Your task to perform on an android device: turn pop-ups off in chrome Image 0: 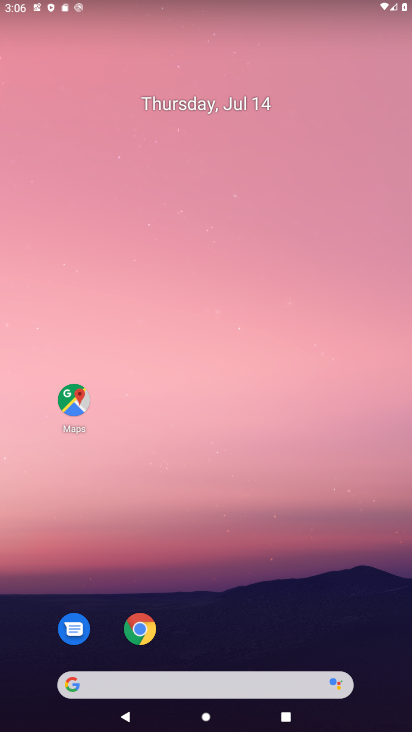
Step 0: click (133, 624)
Your task to perform on an android device: turn pop-ups off in chrome Image 1: 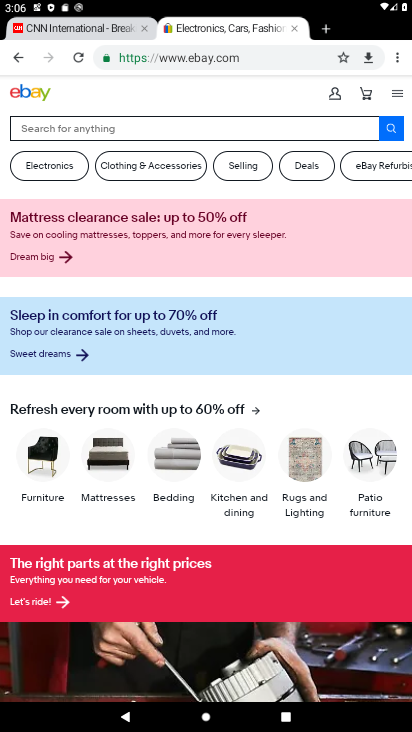
Step 1: click (399, 56)
Your task to perform on an android device: turn pop-ups off in chrome Image 2: 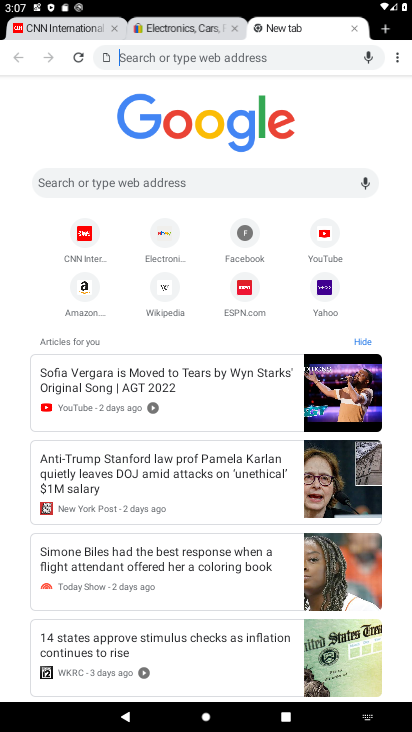
Step 2: click (399, 54)
Your task to perform on an android device: turn pop-ups off in chrome Image 3: 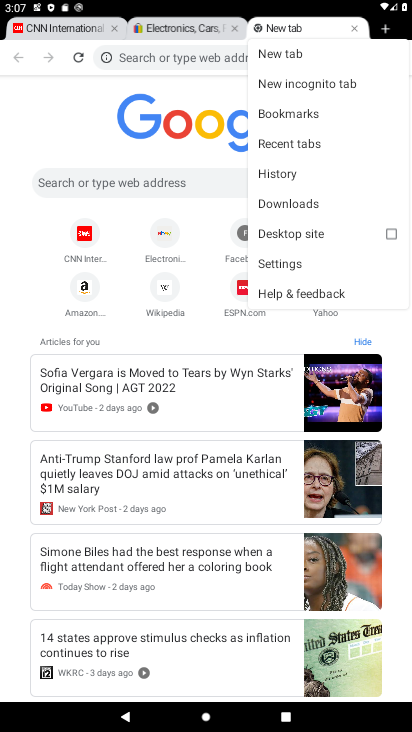
Step 3: click (301, 264)
Your task to perform on an android device: turn pop-ups off in chrome Image 4: 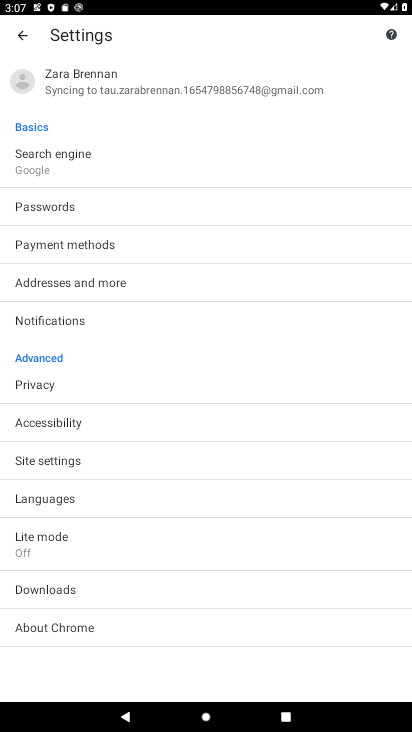
Step 4: click (90, 455)
Your task to perform on an android device: turn pop-ups off in chrome Image 5: 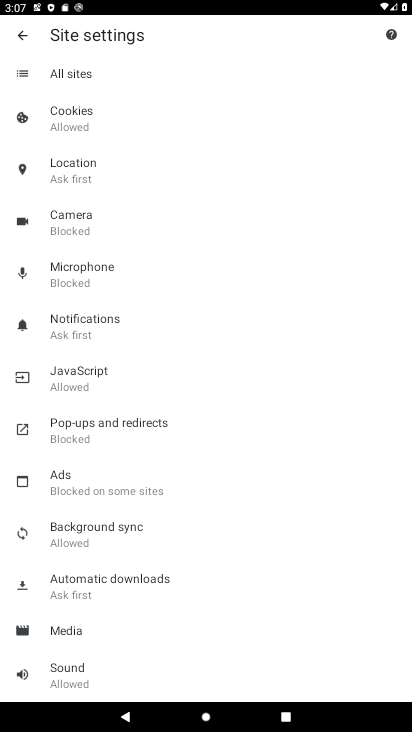
Step 5: click (120, 426)
Your task to perform on an android device: turn pop-ups off in chrome Image 6: 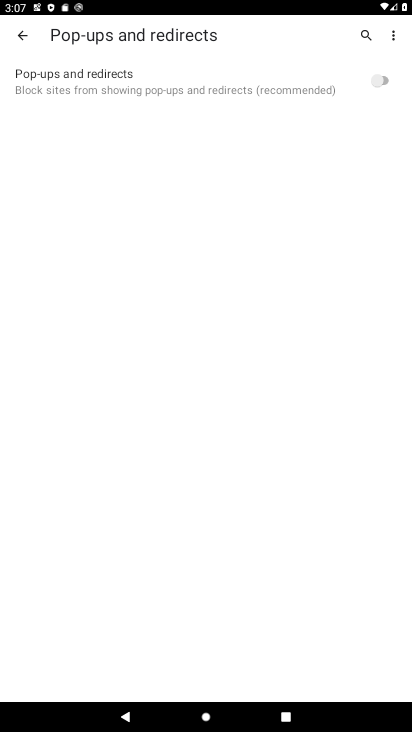
Step 6: task complete